Your task to perform on an android device: turn on translation in the chrome app Image 0: 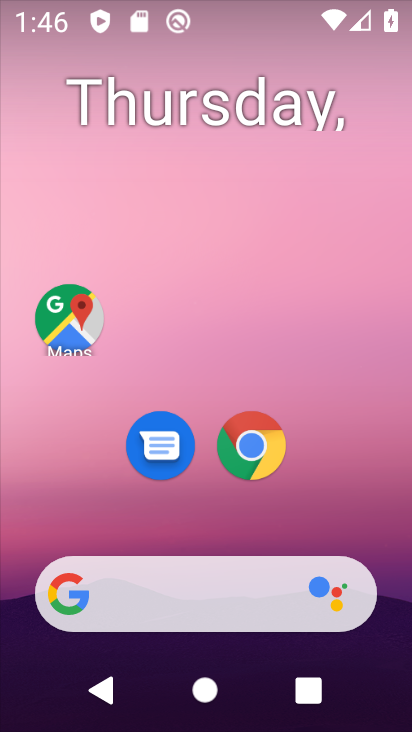
Step 0: click (237, 461)
Your task to perform on an android device: turn on translation in the chrome app Image 1: 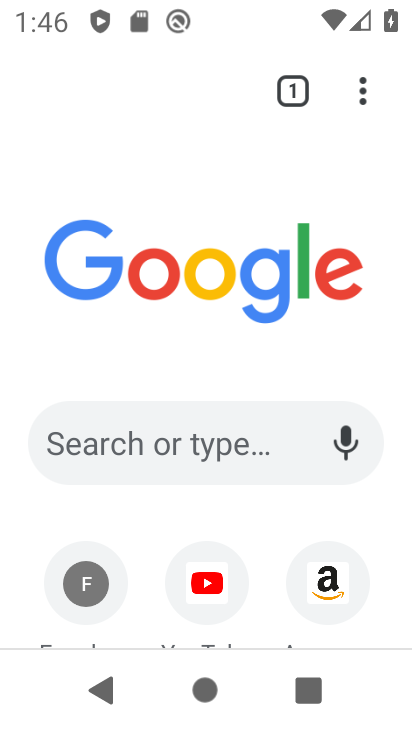
Step 1: click (365, 88)
Your task to perform on an android device: turn on translation in the chrome app Image 2: 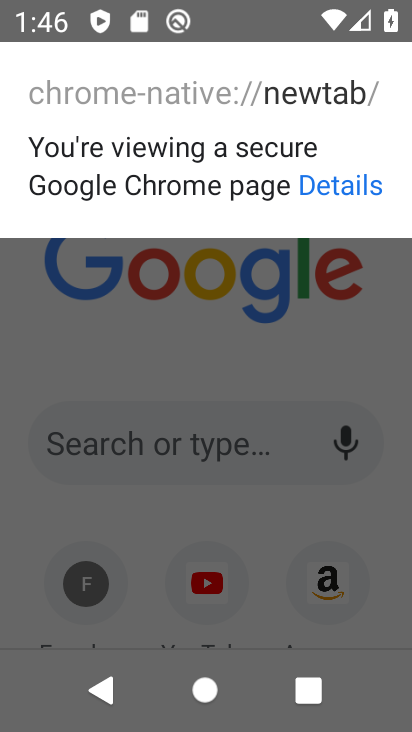
Step 2: click (402, 220)
Your task to perform on an android device: turn on translation in the chrome app Image 3: 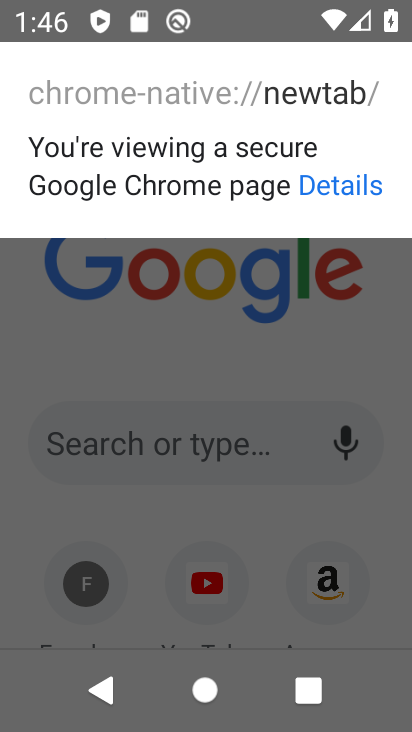
Step 3: press back button
Your task to perform on an android device: turn on translation in the chrome app Image 4: 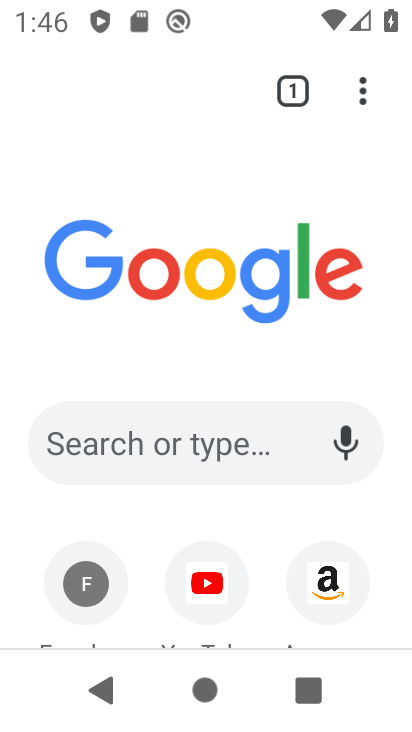
Step 4: click (361, 78)
Your task to perform on an android device: turn on translation in the chrome app Image 5: 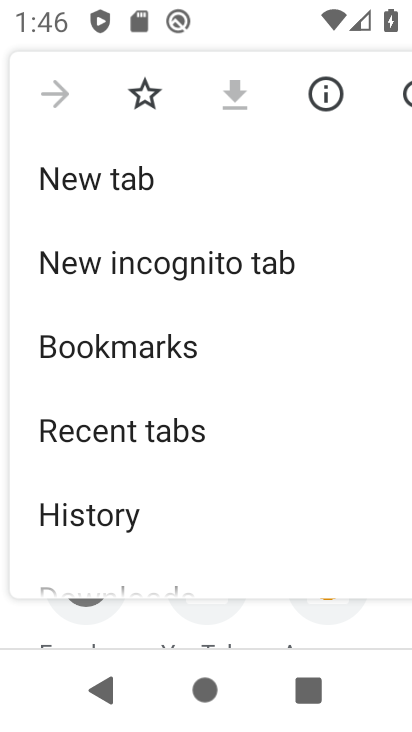
Step 5: drag from (159, 474) to (264, 126)
Your task to perform on an android device: turn on translation in the chrome app Image 6: 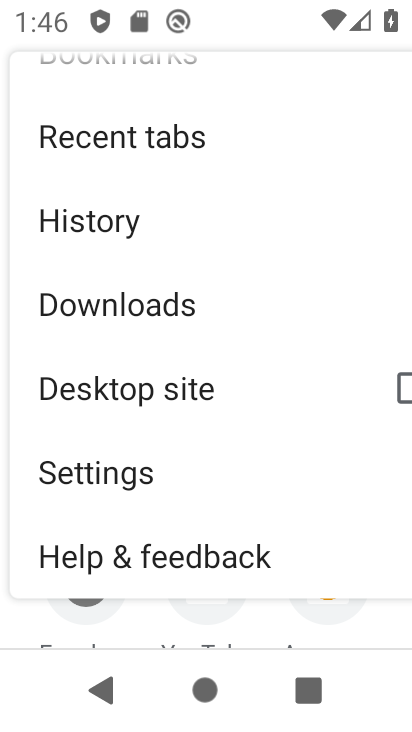
Step 6: click (65, 490)
Your task to perform on an android device: turn on translation in the chrome app Image 7: 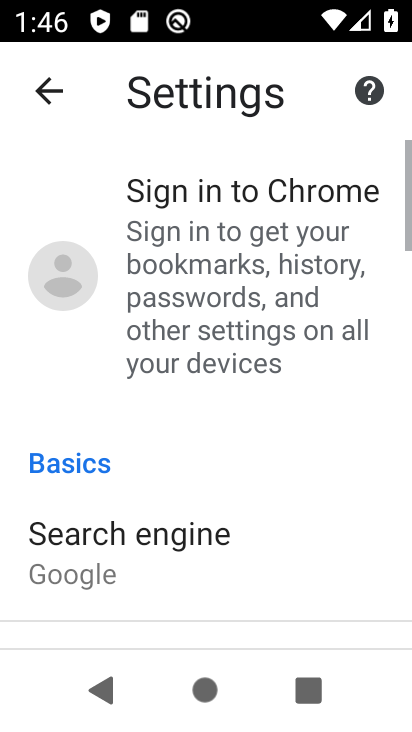
Step 7: drag from (11, 614) to (220, 235)
Your task to perform on an android device: turn on translation in the chrome app Image 8: 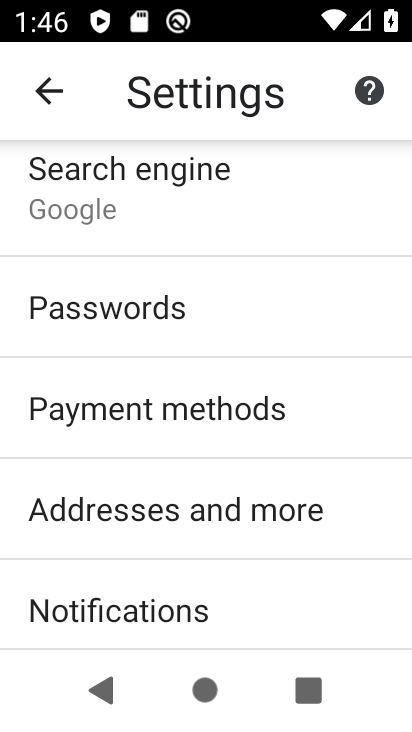
Step 8: drag from (135, 544) to (293, 187)
Your task to perform on an android device: turn on translation in the chrome app Image 9: 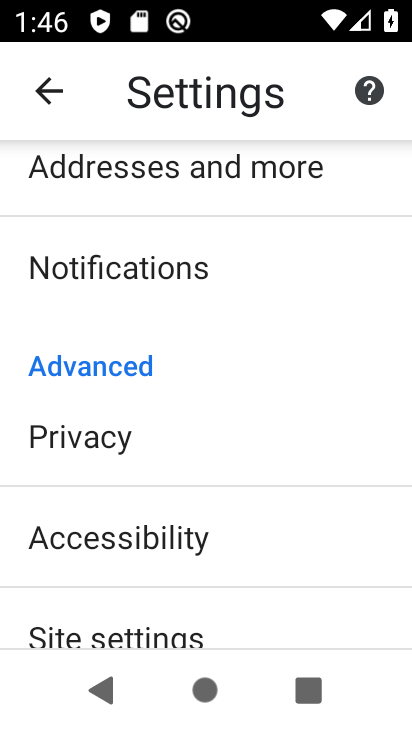
Step 9: click (49, 634)
Your task to perform on an android device: turn on translation in the chrome app Image 10: 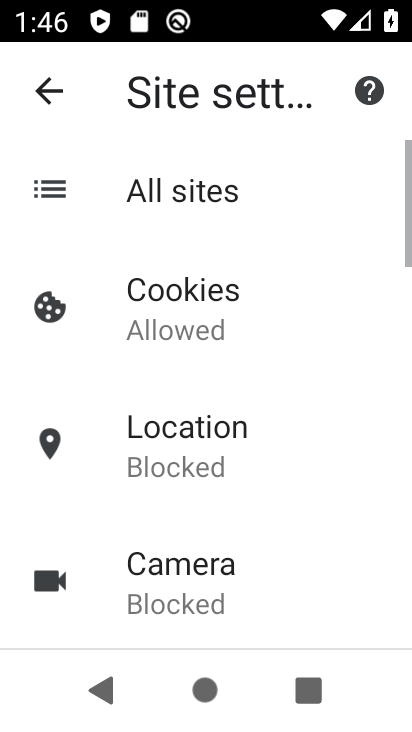
Step 10: press back button
Your task to perform on an android device: turn on translation in the chrome app Image 11: 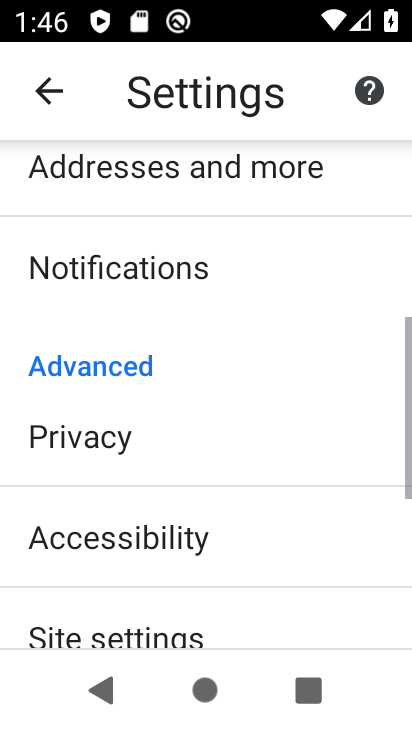
Step 11: drag from (0, 519) to (191, 198)
Your task to perform on an android device: turn on translation in the chrome app Image 12: 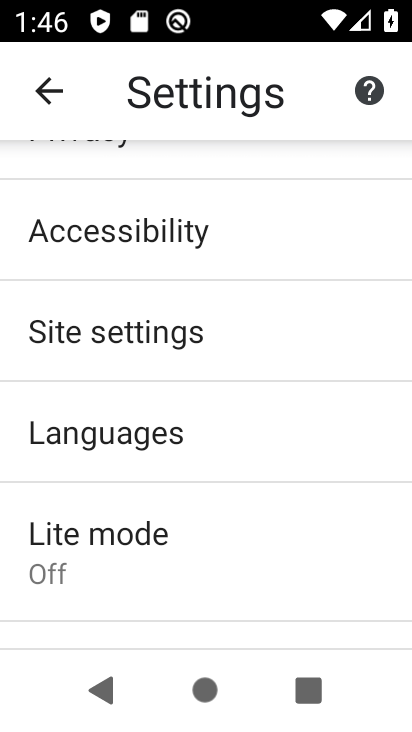
Step 12: click (64, 447)
Your task to perform on an android device: turn on translation in the chrome app Image 13: 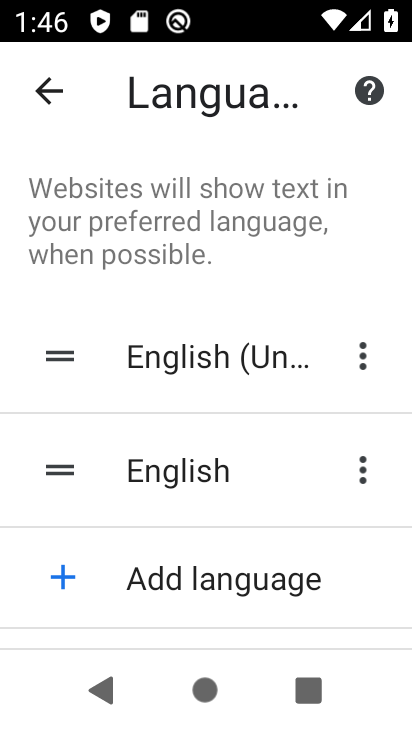
Step 13: task complete